Your task to perform on an android device: set default search engine in the chrome app Image 0: 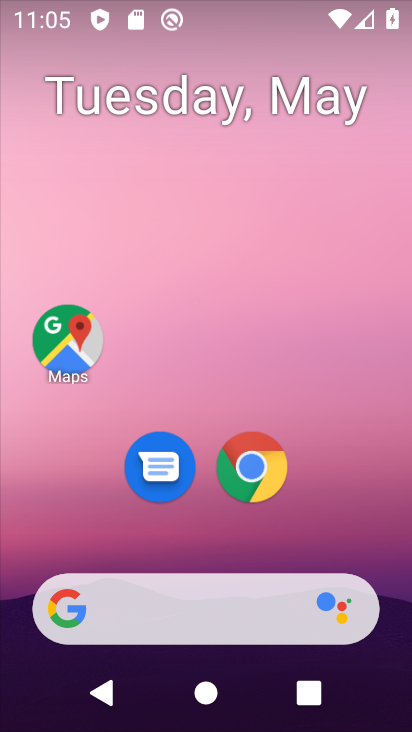
Step 0: drag from (373, 555) to (281, 13)
Your task to perform on an android device: set default search engine in the chrome app Image 1: 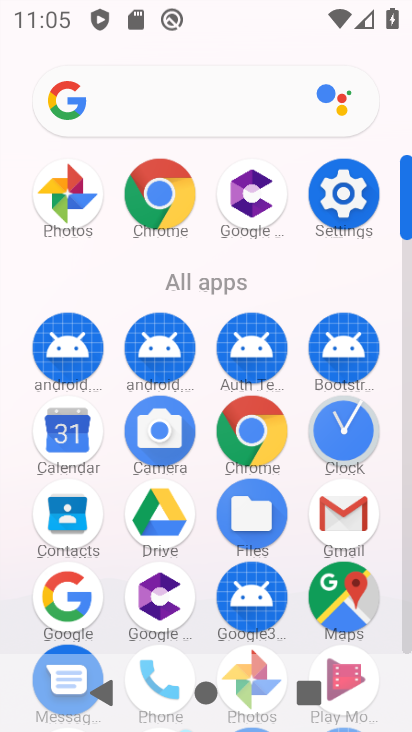
Step 1: drag from (0, 606) to (24, 184)
Your task to perform on an android device: set default search engine in the chrome app Image 2: 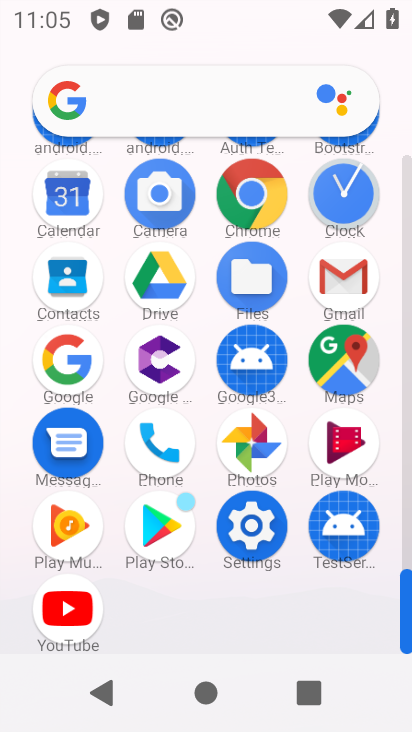
Step 2: click (251, 194)
Your task to perform on an android device: set default search engine in the chrome app Image 3: 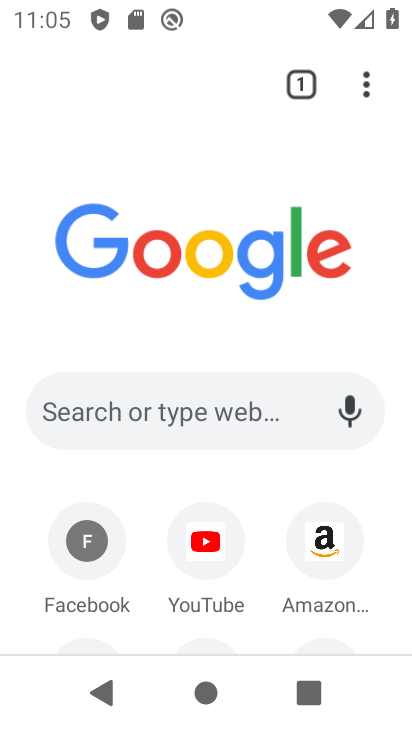
Step 3: task complete